Your task to perform on an android device: Open Chrome and go to settings Image 0: 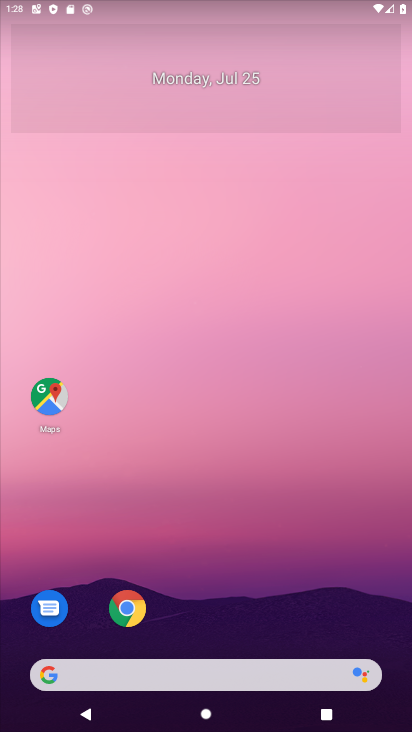
Step 0: drag from (274, 599) to (321, 309)
Your task to perform on an android device: Open Chrome and go to settings Image 1: 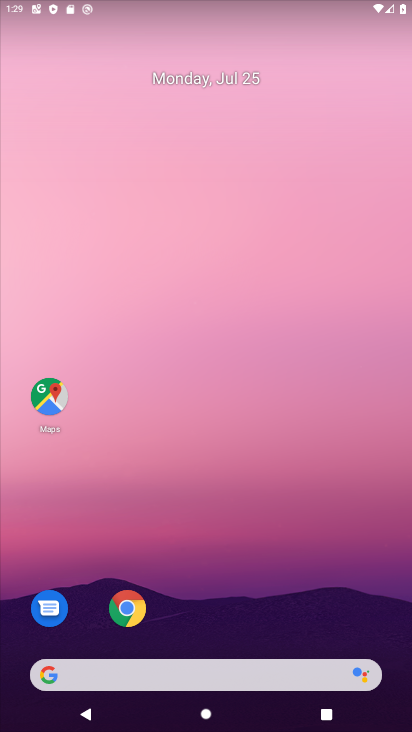
Step 1: drag from (292, 564) to (285, 108)
Your task to perform on an android device: Open Chrome and go to settings Image 2: 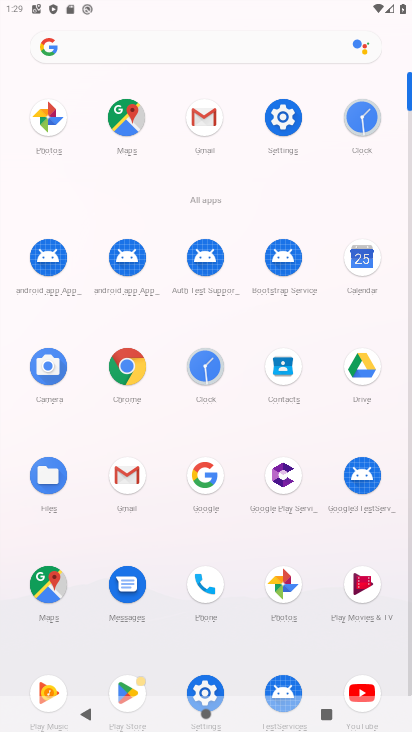
Step 2: click (288, 118)
Your task to perform on an android device: Open Chrome and go to settings Image 3: 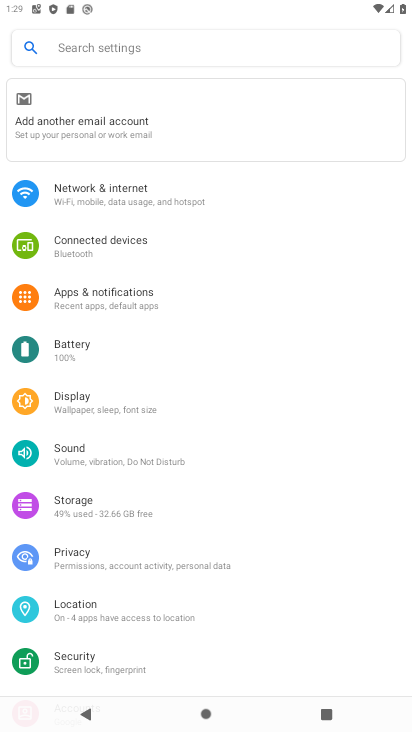
Step 3: press home button
Your task to perform on an android device: Open Chrome and go to settings Image 4: 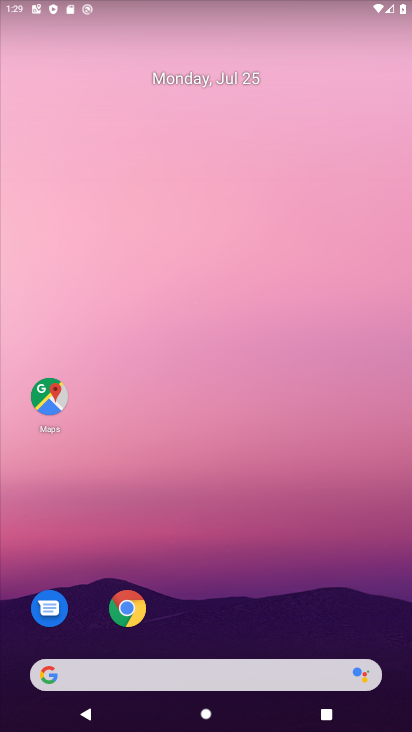
Step 4: click (142, 605)
Your task to perform on an android device: Open Chrome and go to settings Image 5: 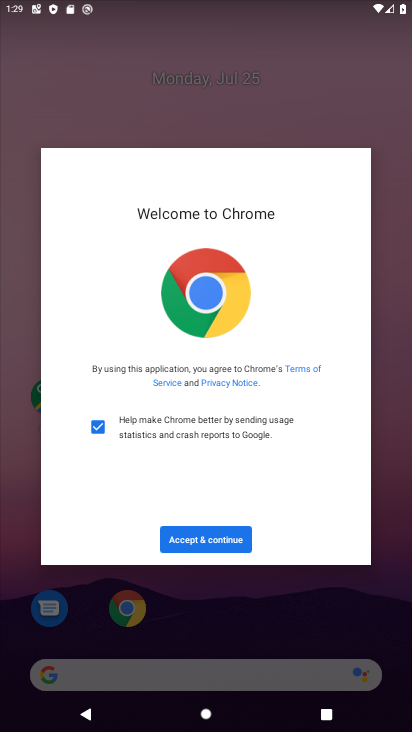
Step 5: click (220, 544)
Your task to perform on an android device: Open Chrome and go to settings Image 6: 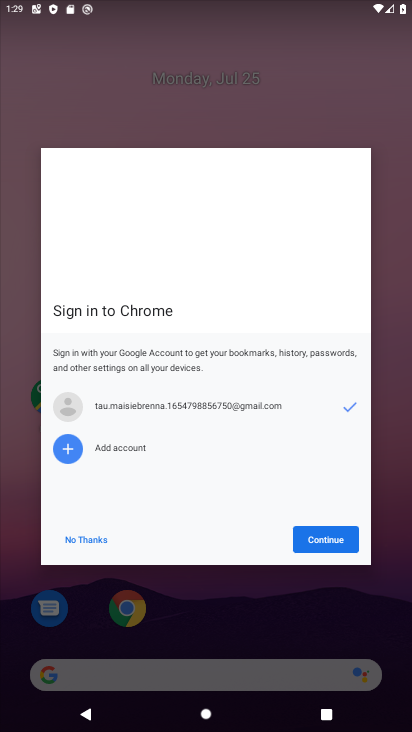
Step 6: click (322, 539)
Your task to perform on an android device: Open Chrome and go to settings Image 7: 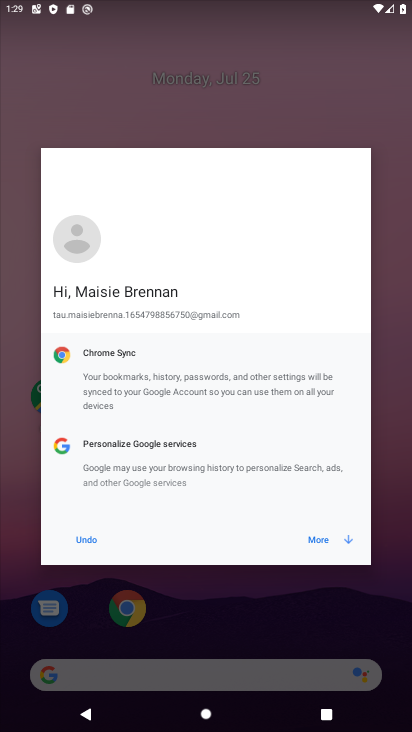
Step 7: click (322, 539)
Your task to perform on an android device: Open Chrome and go to settings Image 8: 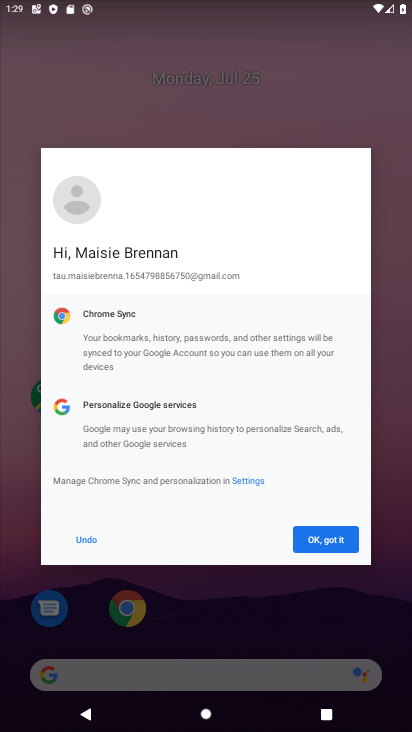
Step 8: click (322, 539)
Your task to perform on an android device: Open Chrome and go to settings Image 9: 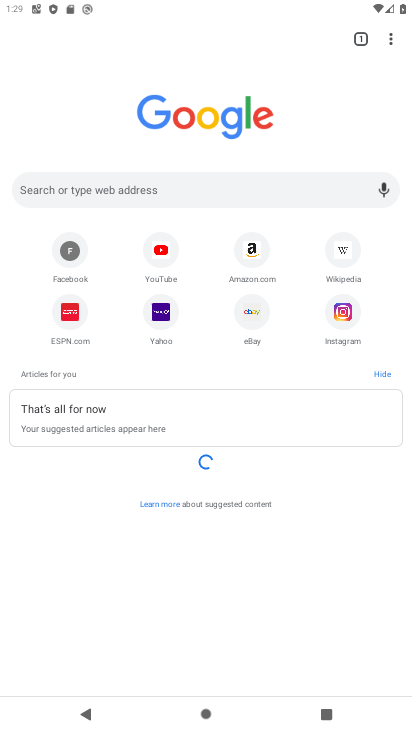
Step 9: click (390, 39)
Your task to perform on an android device: Open Chrome and go to settings Image 10: 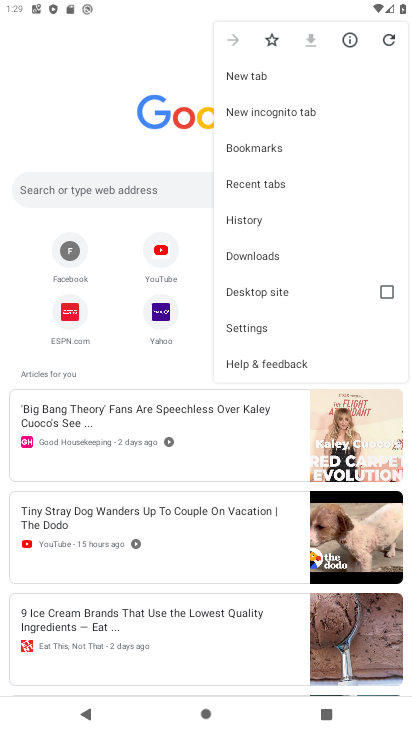
Step 10: click (260, 325)
Your task to perform on an android device: Open Chrome and go to settings Image 11: 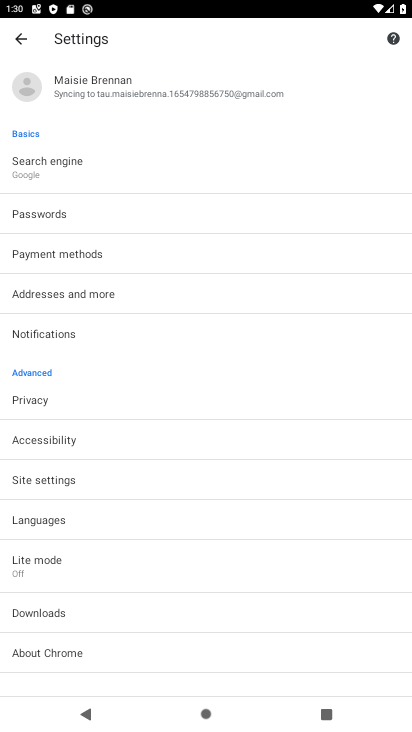
Step 11: task complete